Your task to perform on an android device: uninstall "Duolingo: language lessons" Image 0: 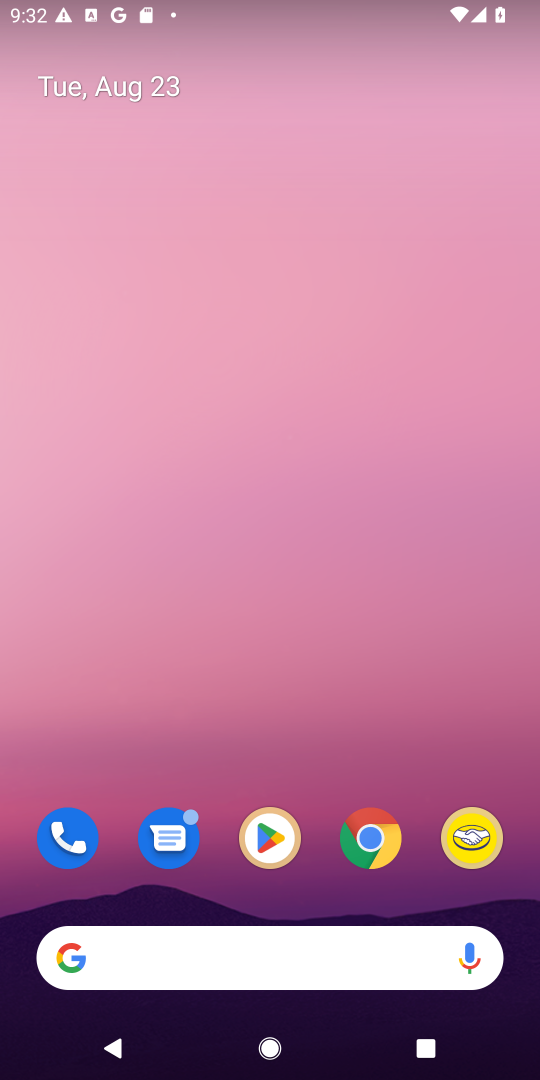
Step 0: click (265, 839)
Your task to perform on an android device: uninstall "Duolingo: language lessons" Image 1: 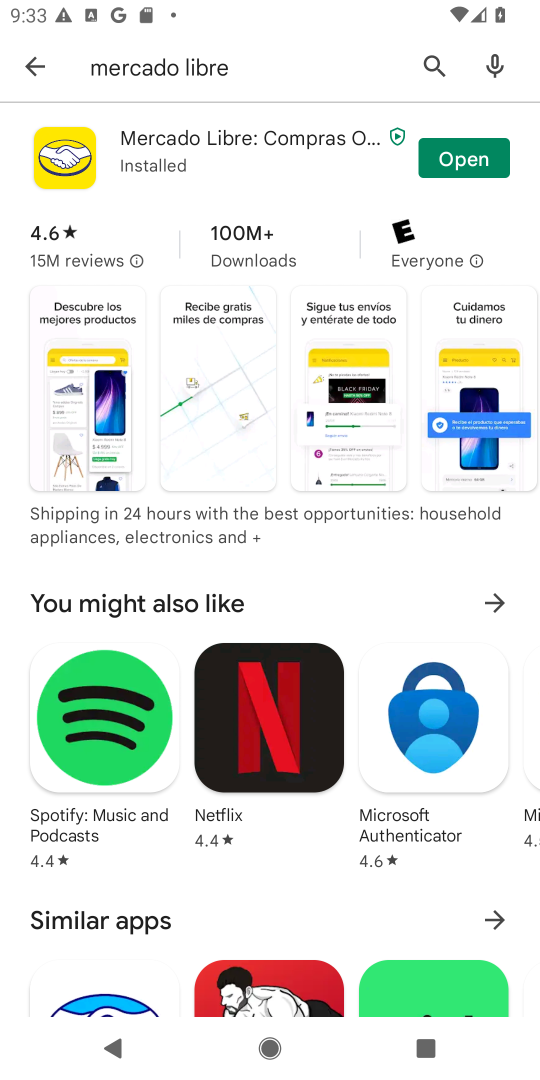
Step 1: click (432, 55)
Your task to perform on an android device: uninstall "Duolingo: language lessons" Image 2: 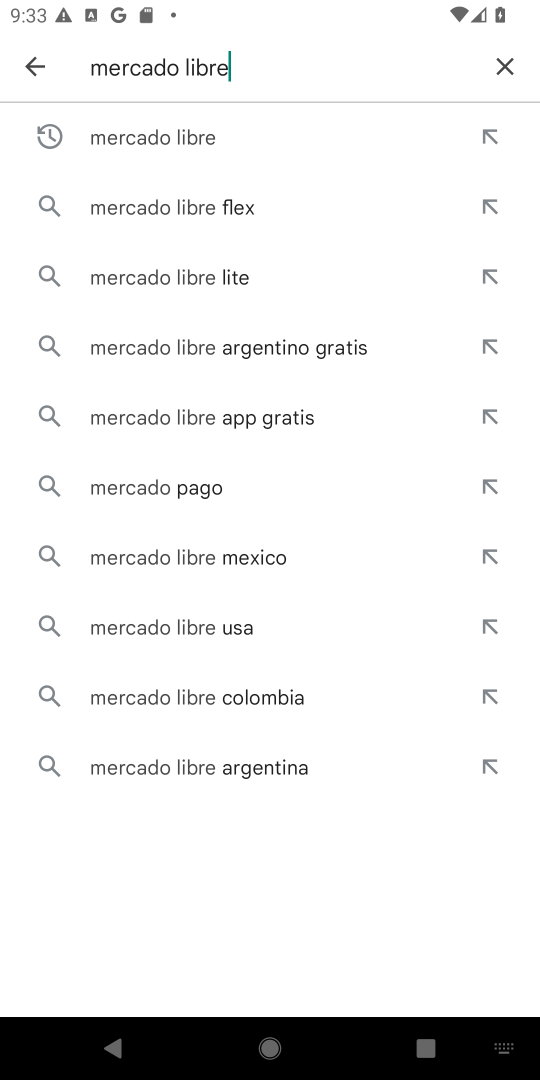
Step 2: click (517, 57)
Your task to perform on an android device: uninstall "Duolingo: language lessons" Image 3: 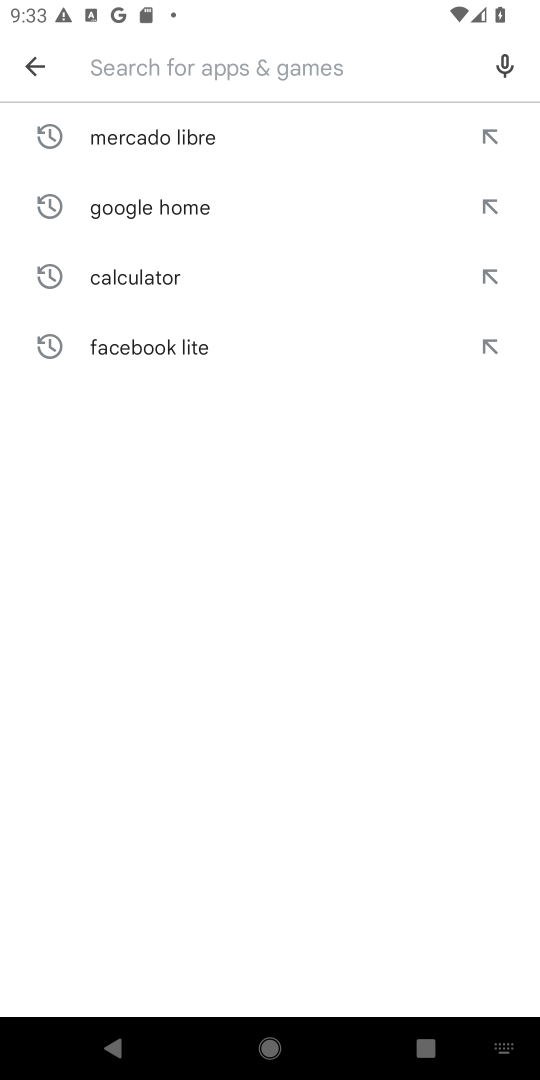
Step 3: type "Duolingo: language lessons"
Your task to perform on an android device: uninstall "Duolingo: language lessons" Image 4: 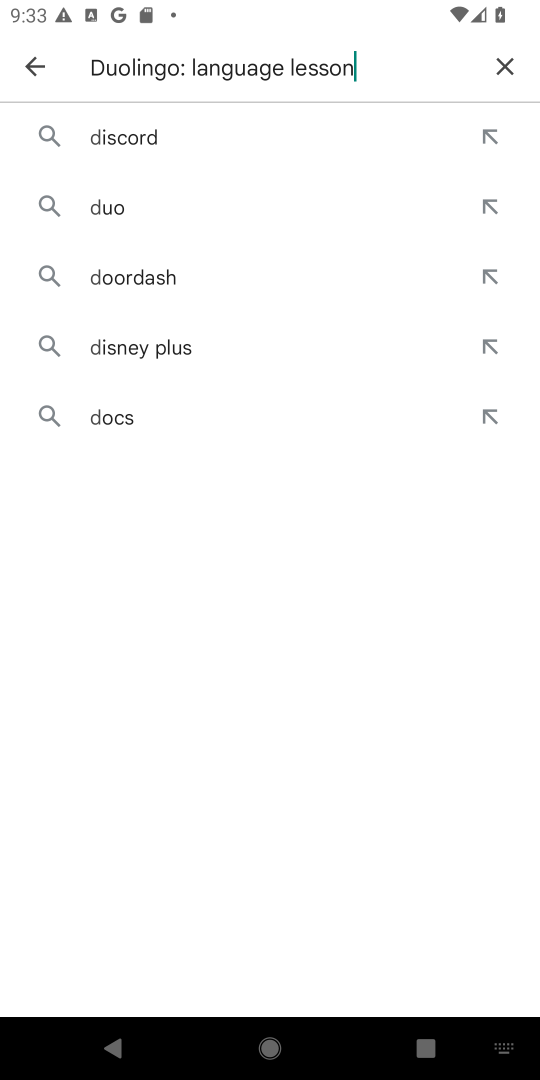
Step 4: type ""
Your task to perform on an android device: uninstall "Duolingo: language lessons" Image 5: 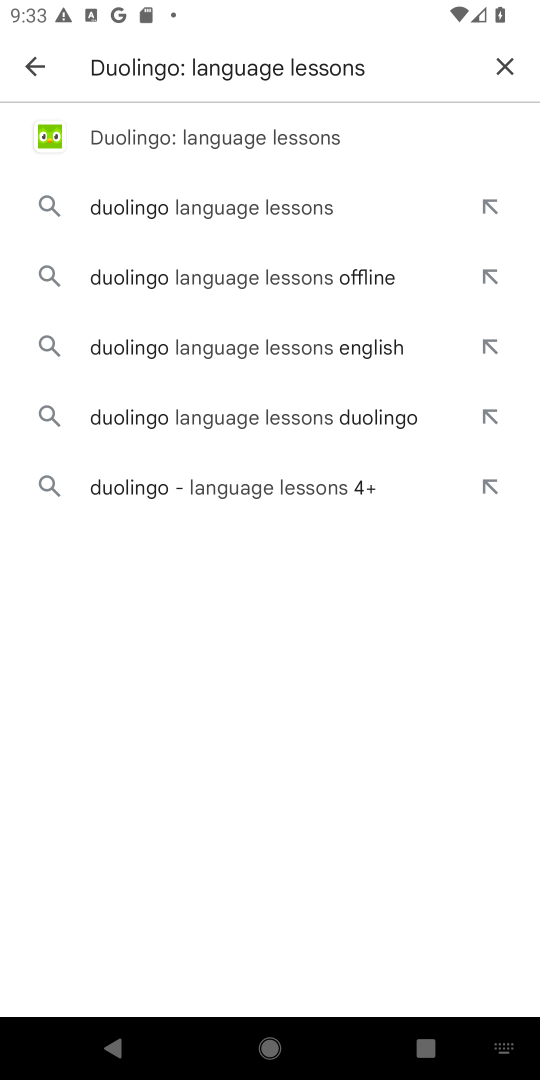
Step 5: click (324, 147)
Your task to perform on an android device: uninstall "Duolingo: language lessons" Image 6: 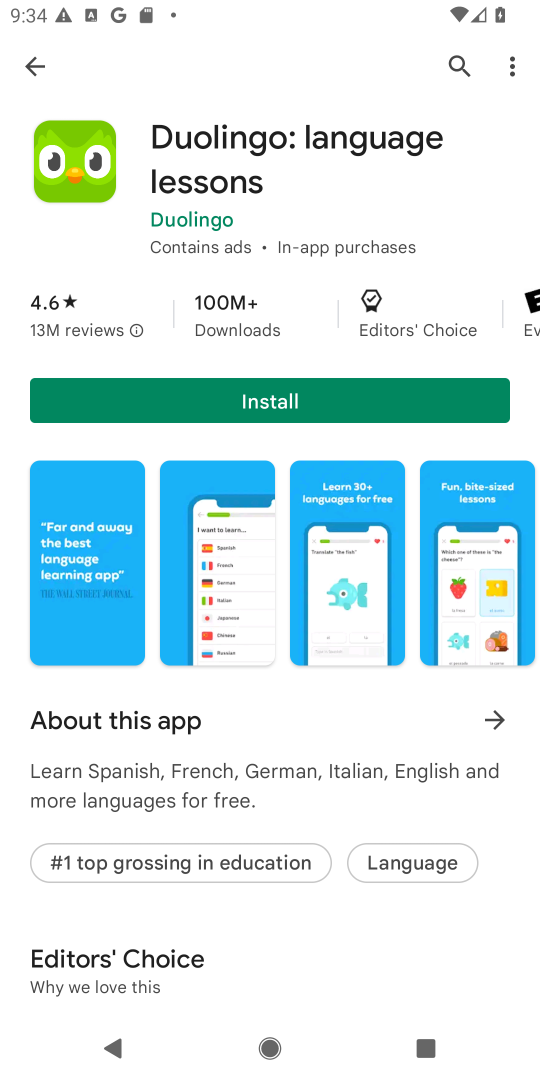
Step 6: task complete